Your task to perform on an android device: allow notifications from all sites in the chrome app Image 0: 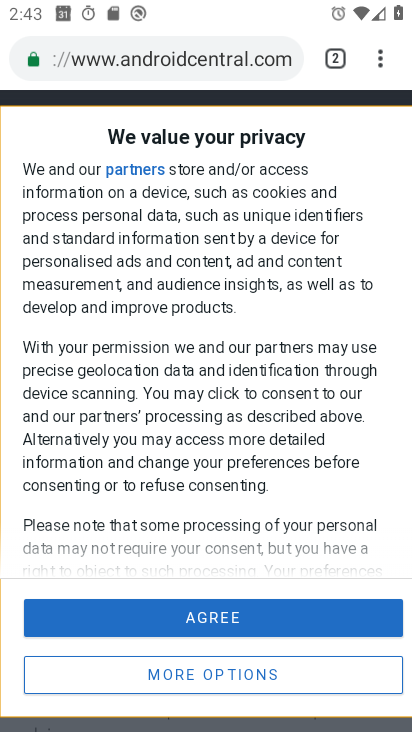
Step 0: drag from (374, 67) to (185, 627)
Your task to perform on an android device: allow notifications from all sites in the chrome app Image 1: 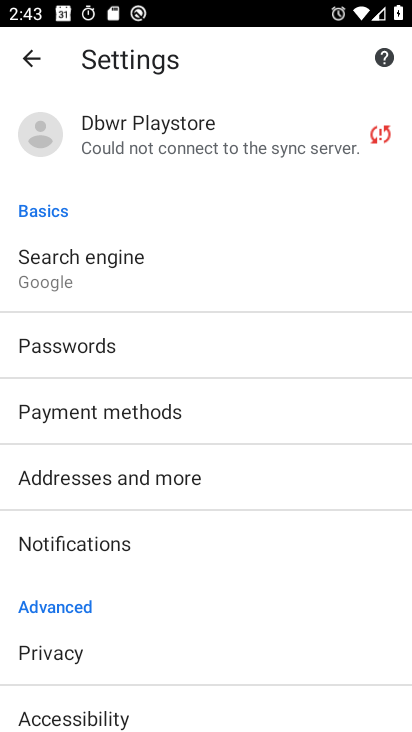
Step 1: drag from (195, 657) to (183, 271)
Your task to perform on an android device: allow notifications from all sites in the chrome app Image 2: 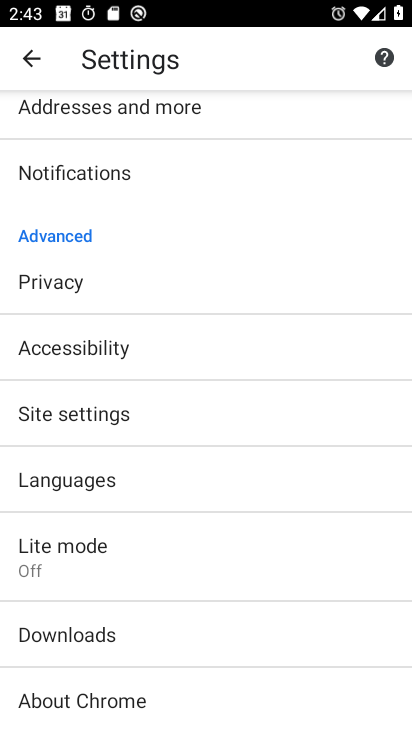
Step 2: click (118, 422)
Your task to perform on an android device: allow notifications from all sites in the chrome app Image 3: 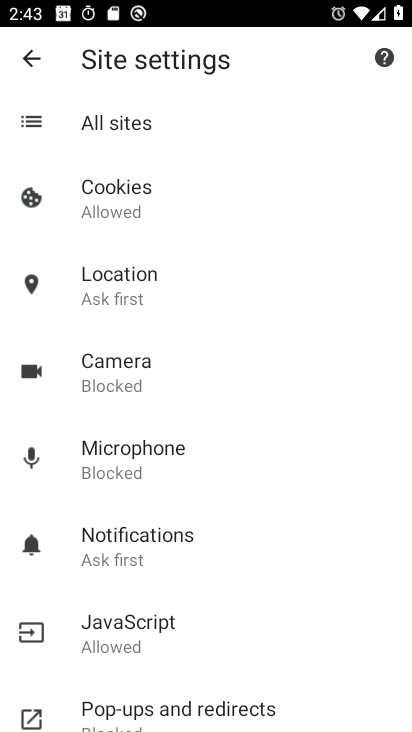
Step 3: drag from (164, 654) to (177, 397)
Your task to perform on an android device: allow notifications from all sites in the chrome app Image 4: 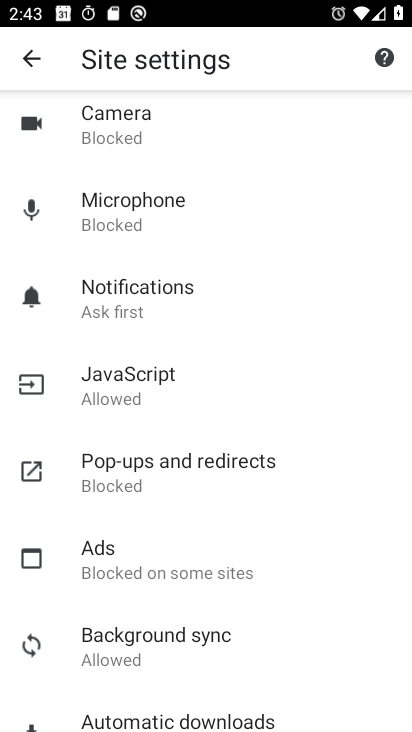
Step 4: click (148, 276)
Your task to perform on an android device: allow notifications from all sites in the chrome app Image 5: 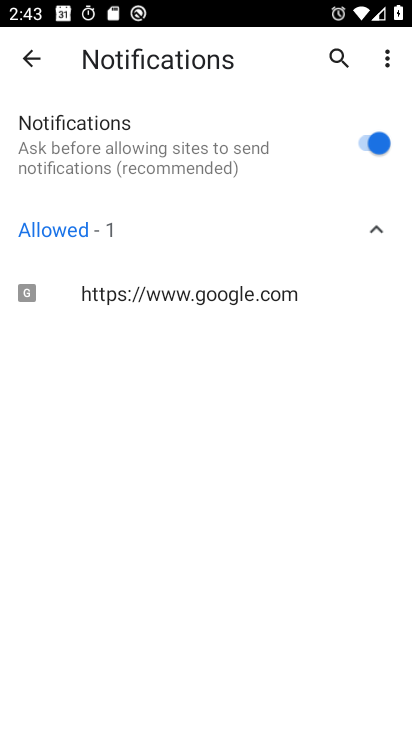
Step 5: task complete